Your task to perform on an android device: Open Chrome and go to the settings page Image 0: 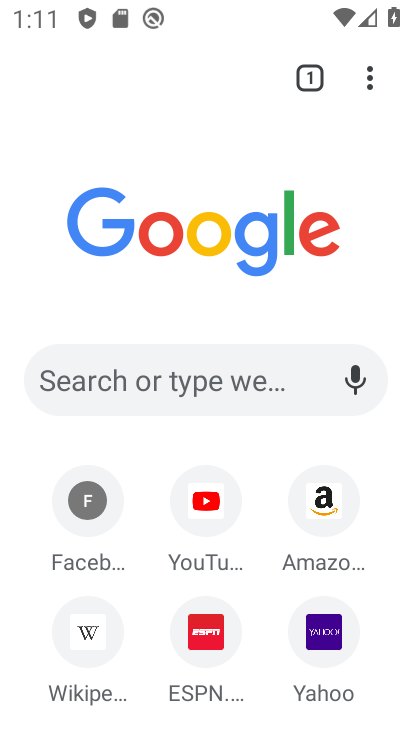
Step 0: drag from (372, 83) to (135, 648)
Your task to perform on an android device: Open Chrome and go to the settings page Image 1: 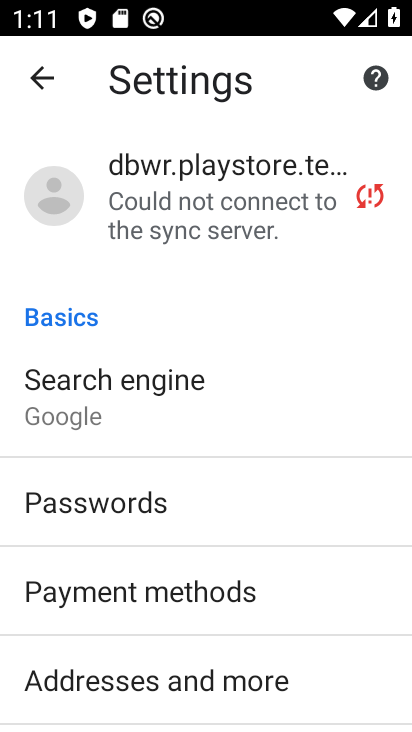
Step 1: task complete